Your task to perform on an android device: find photos in the google photos app Image 0: 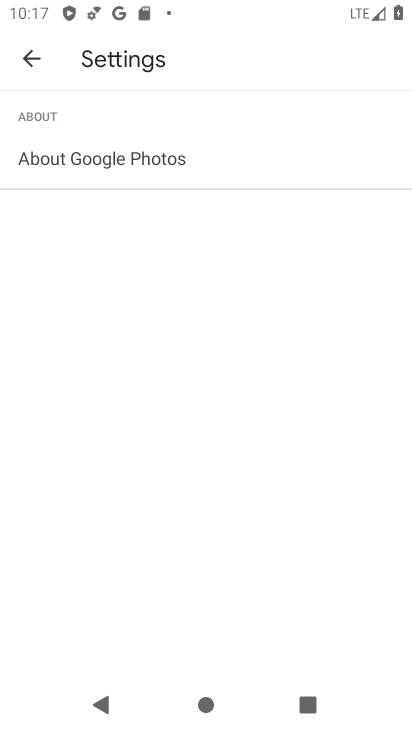
Step 0: press home button
Your task to perform on an android device: find photos in the google photos app Image 1: 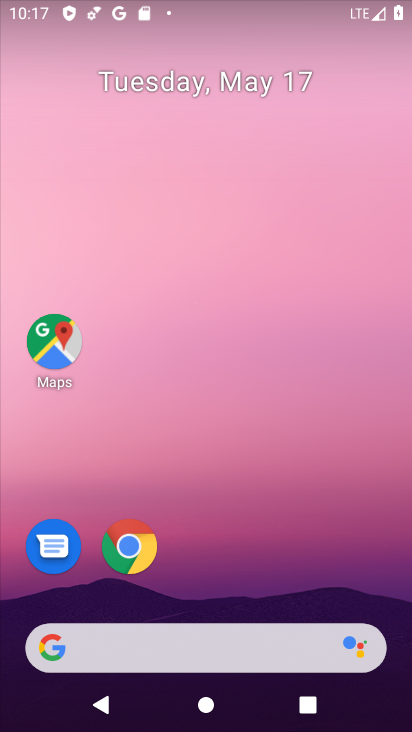
Step 1: drag from (222, 600) to (313, 120)
Your task to perform on an android device: find photos in the google photos app Image 2: 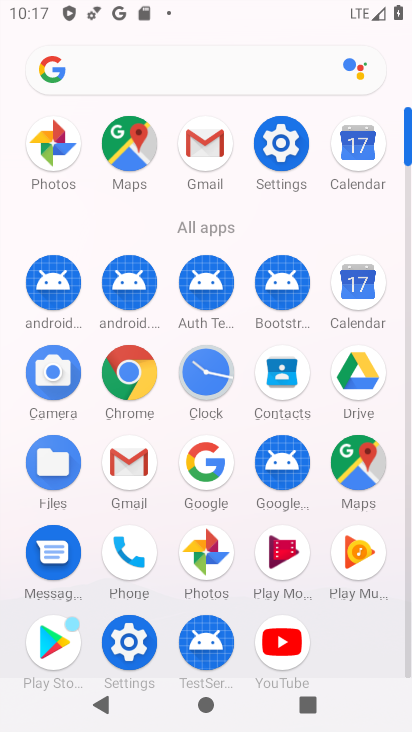
Step 2: click (213, 563)
Your task to perform on an android device: find photos in the google photos app Image 3: 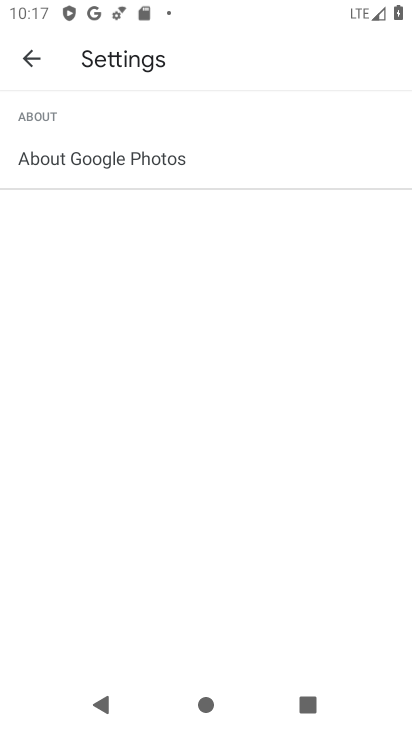
Step 3: click (37, 51)
Your task to perform on an android device: find photos in the google photos app Image 4: 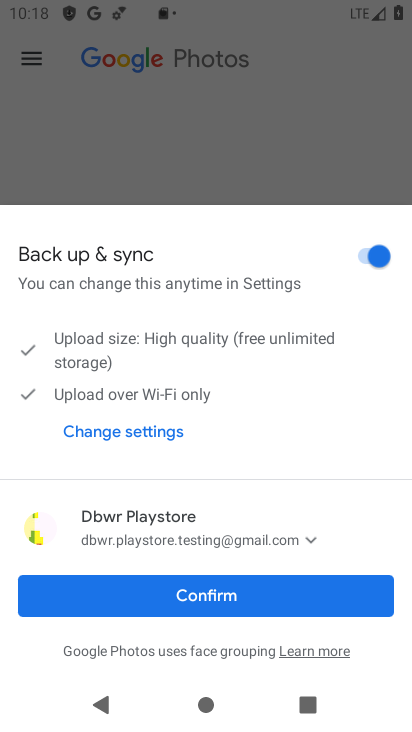
Step 4: click (211, 607)
Your task to perform on an android device: find photos in the google photos app Image 5: 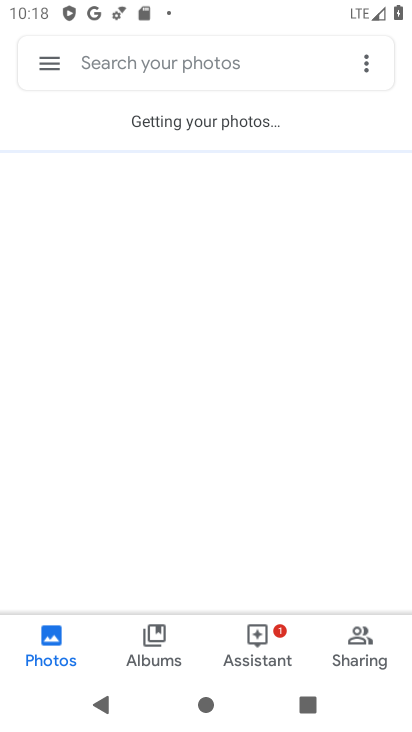
Step 5: click (35, 57)
Your task to perform on an android device: find photos in the google photos app Image 6: 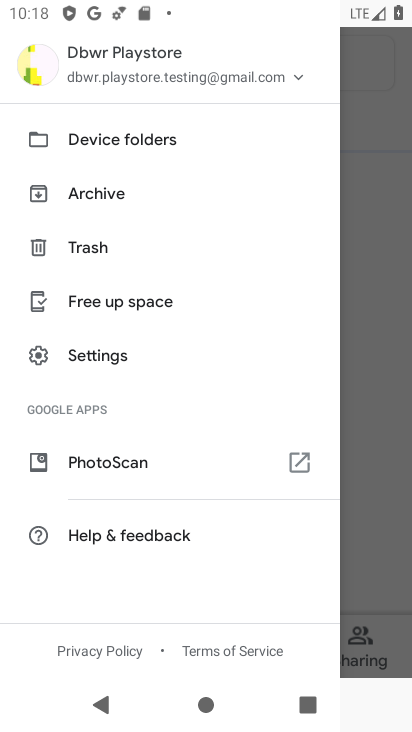
Step 6: click (376, 265)
Your task to perform on an android device: find photos in the google photos app Image 7: 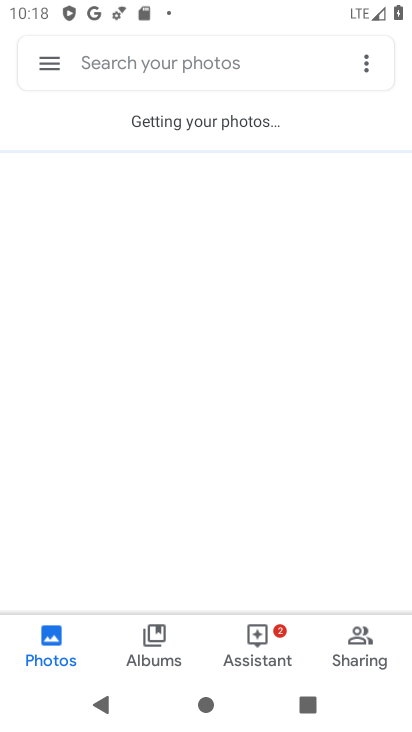
Step 7: click (360, 73)
Your task to perform on an android device: find photos in the google photos app Image 8: 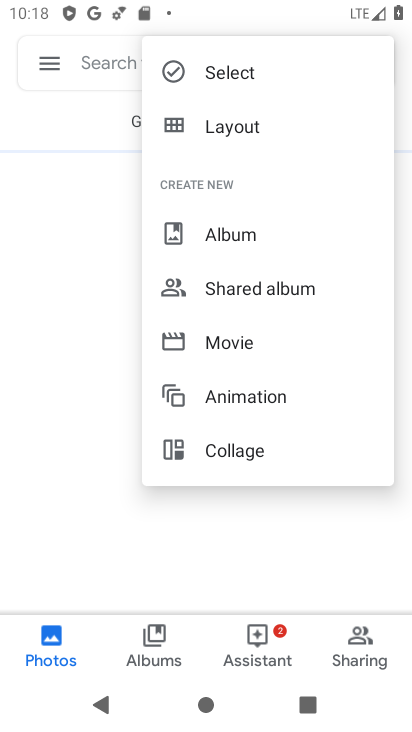
Step 8: click (80, 483)
Your task to perform on an android device: find photos in the google photos app Image 9: 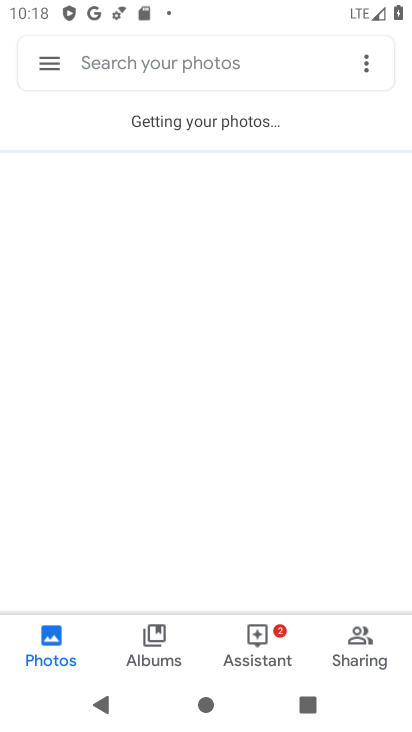
Step 9: task complete